Your task to perform on an android device: What's on my calendar today? Image 0: 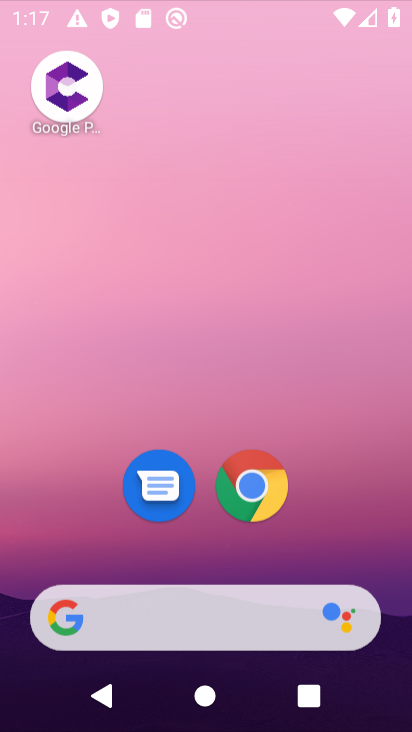
Step 0: drag from (303, 335) to (290, 21)
Your task to perform on an android device: What's on my calendar today? Image 1: 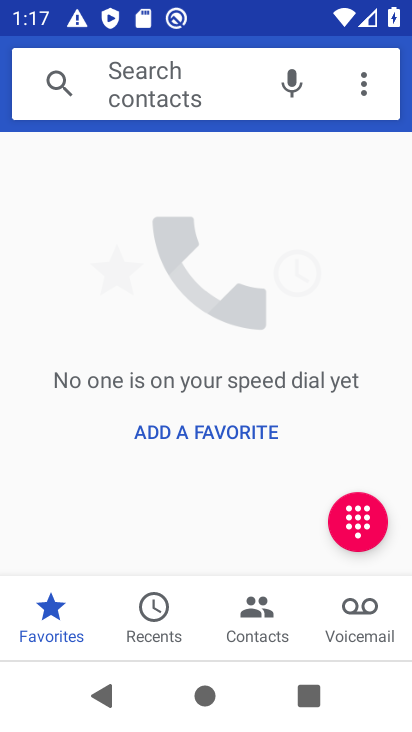
Step 1: press home button
Your task to perform on an android device: What's on my calendar today? Image 2: 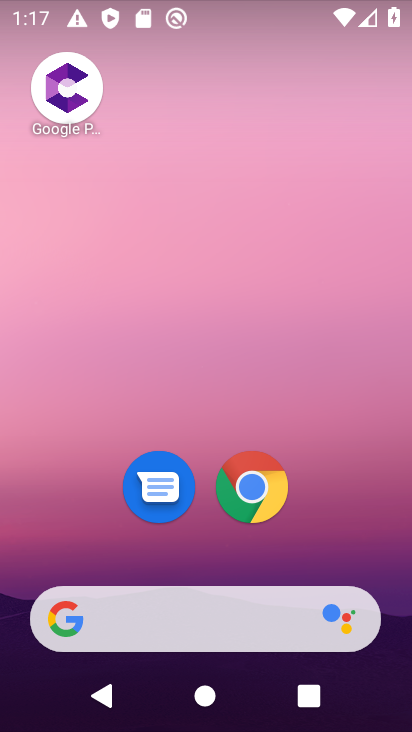
Step 2: drag from (340, 515) to (322, 51)
Your task to perform on an android device: What's on my calendar today? Image 3: 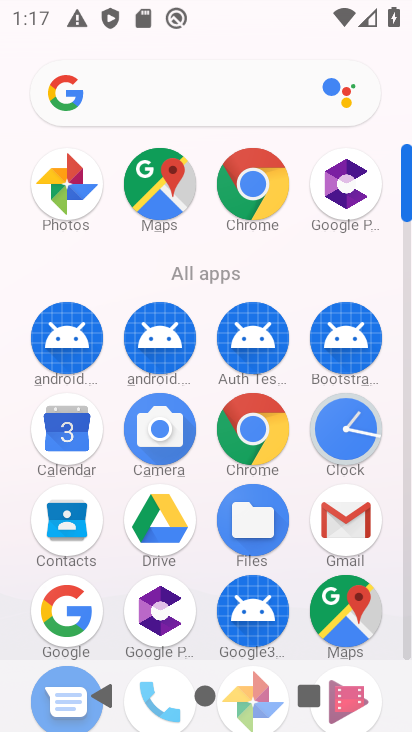
Step 3: click (69, 424)
Your task to perform on an android device: What's on my calendar today? Image 4: 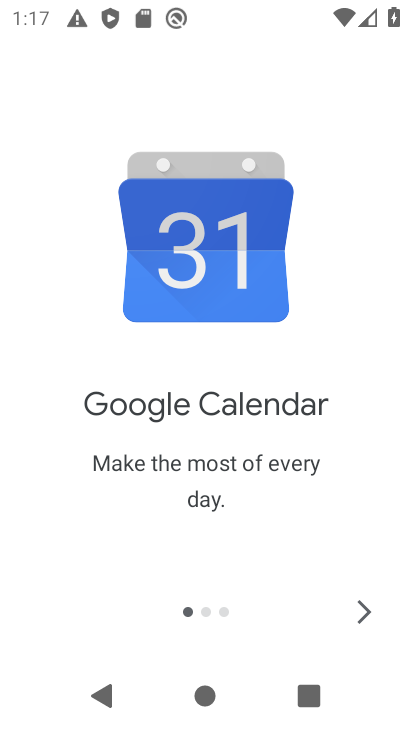
Step 4: click (360, 608)
Your task to perform on an android device: What's on my calendar today? Image 5: 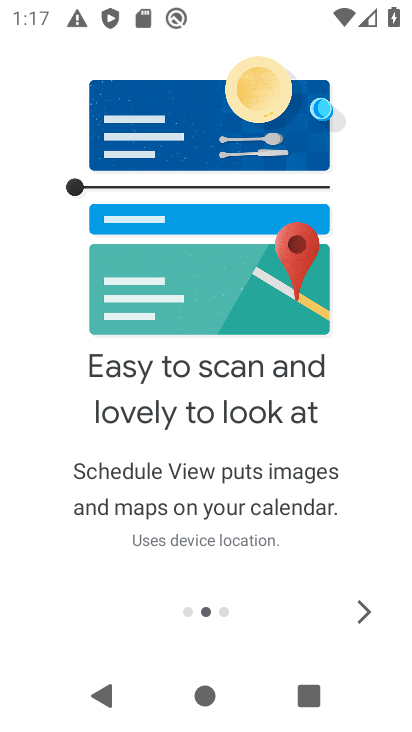
Step 5: click (360, 608)
Your task to perform on an android device: What's on my calendar today? Image 6: 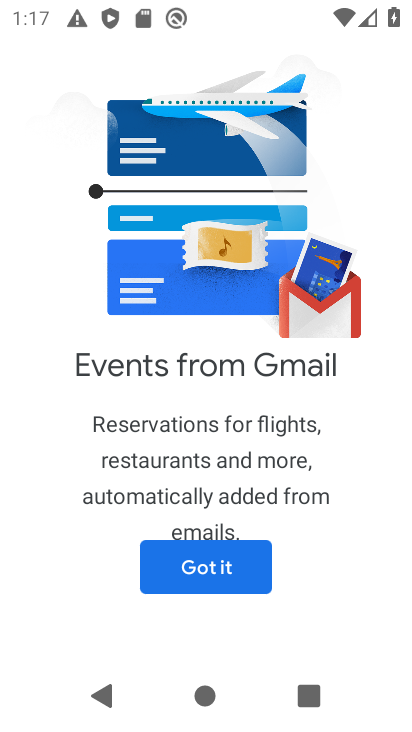
Step 6: click (224, 569)
Your task to perform on an android device: What's on my calendar today? Image 7: 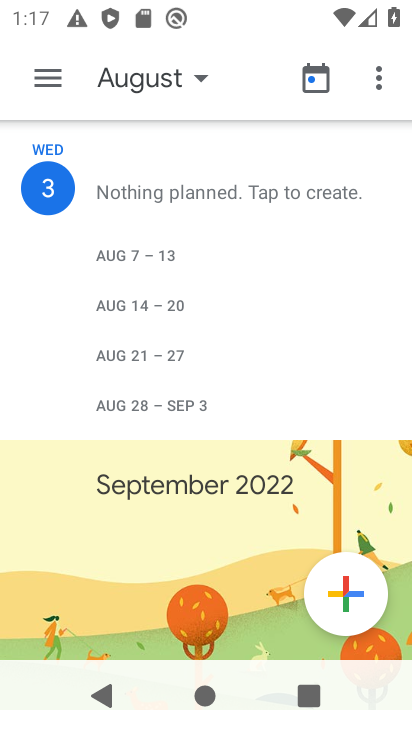
Step 7: click (198, 83)
Your task to perform on an android device: What's on my calendar today? Image 8: 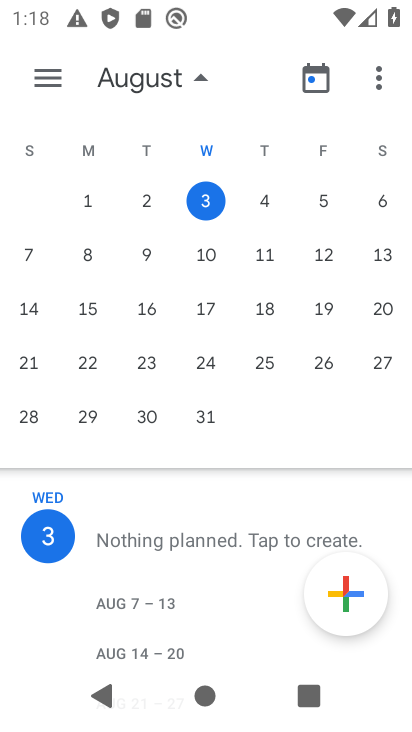
Step 8: drag from (352, 303) to (298, 290)
Your task to perform on an android device: What's on my calendar today? Image 9: 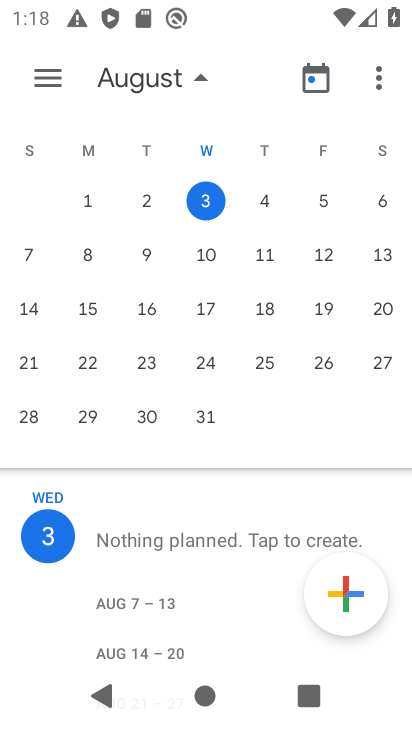
Step 9: click (210, 206)
Your task to perform on an android device: What's on my calendar today? Image 10: 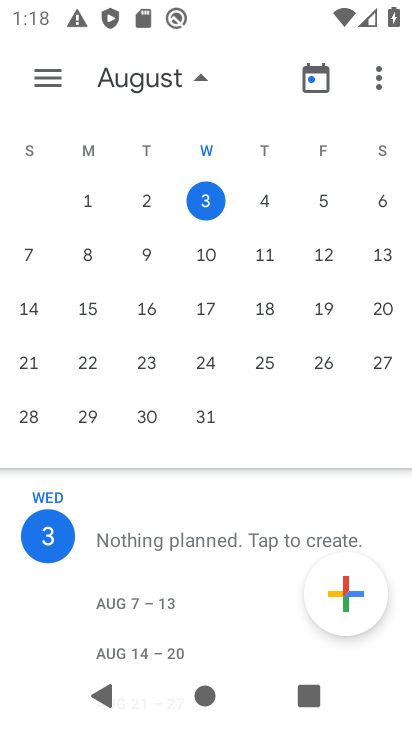
Step 10: task complete